Your task to perform on an android device: change notification settings in the gmail app Image 0: 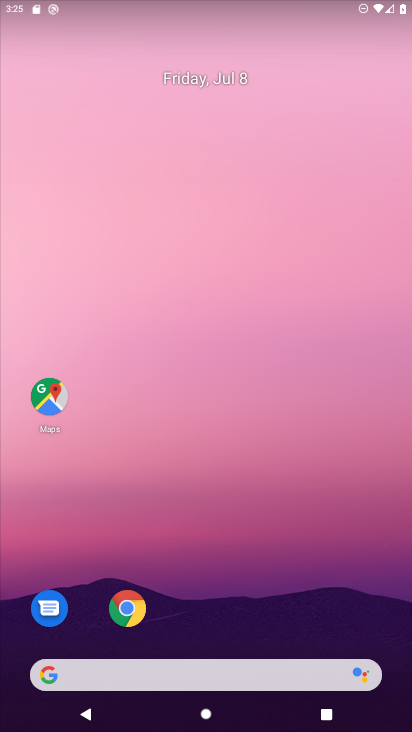
Step 0: drag from (222, 587) to (281, 324)
Your task to perform on an android device: change notification settings in the gmail app Image 1: 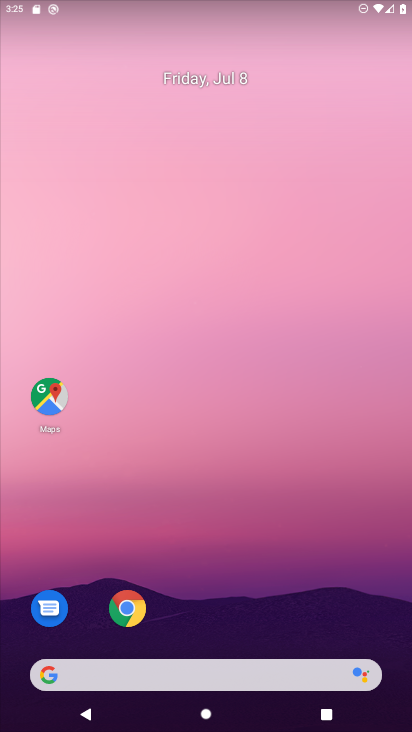
Step 1: drag from (321, 617) to (391, 61)
Your task to perform on an android device: change notification settings in the gmail app Image 2: 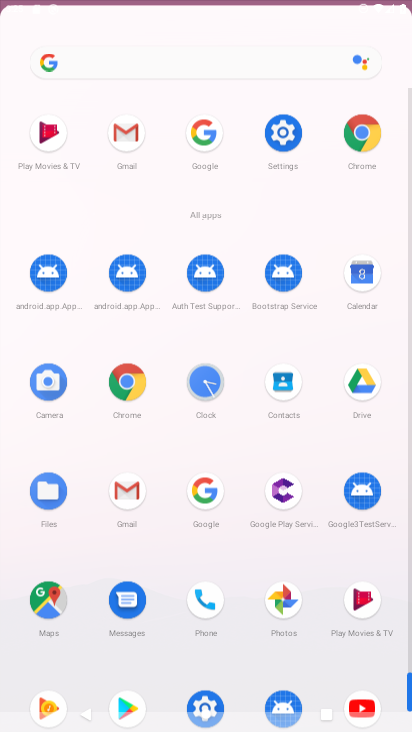
Step 2: drag from (254, 605) to (338, 152)
Your task to perform on an android device: change notification settings in the gmail app Image 3: 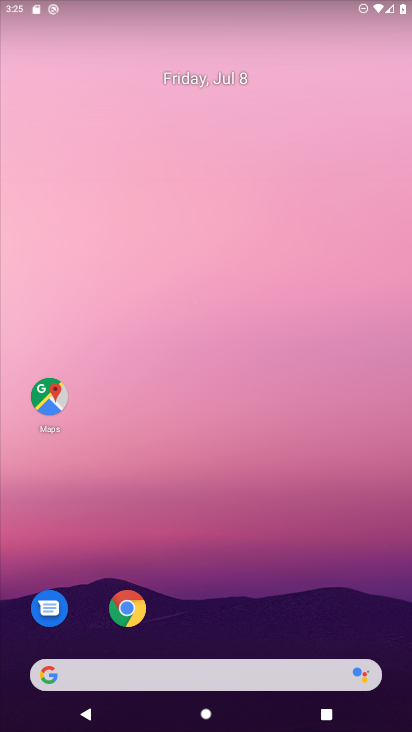
Step 3: drag from (263, 615) to (315, 28)
Your task to perform on an android device: change notification settings in the gmail app Image 4: 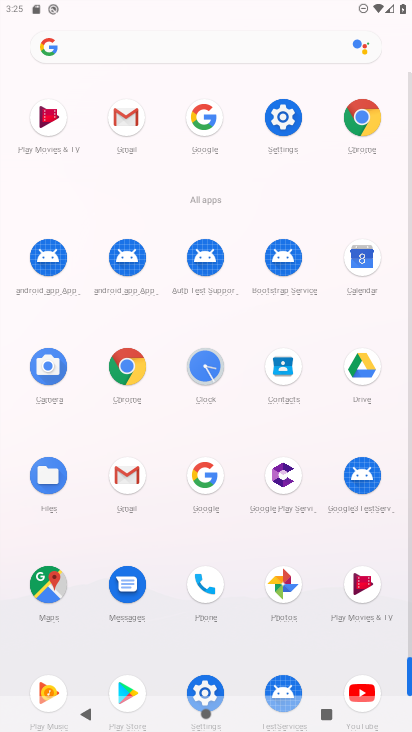
Step 4: click (127, 479)
Your task to perform on an android device: change notification settings in the gmail app Image 5: 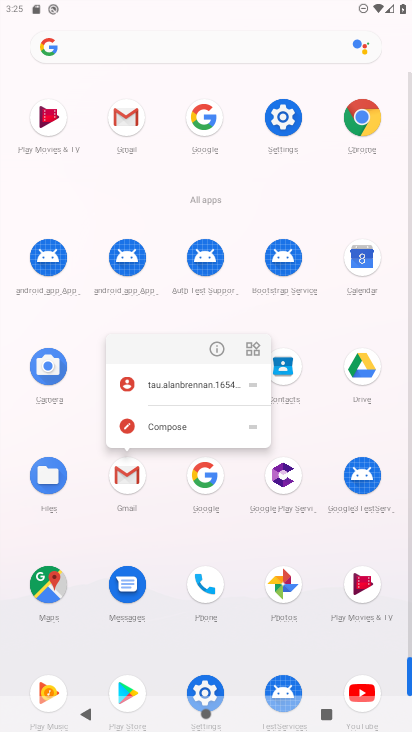
Step 5: click (220, 344)
Your task to perform on an android device: change notification settings in the gmail app Image 6: 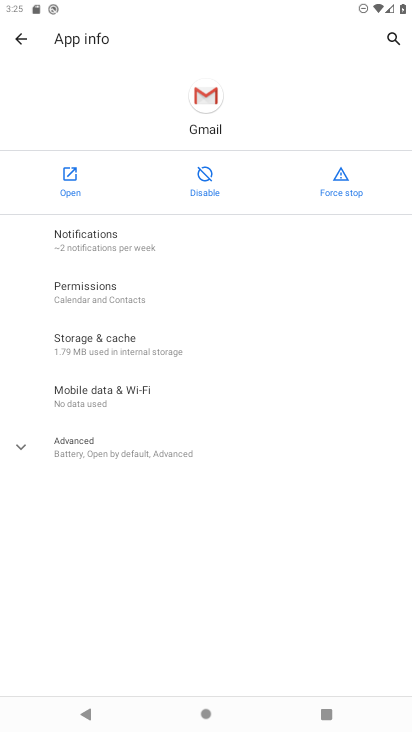
Step 6: click (100, 237)
Your task to perform on an android device: change notification settings in the gmail app Image 7: 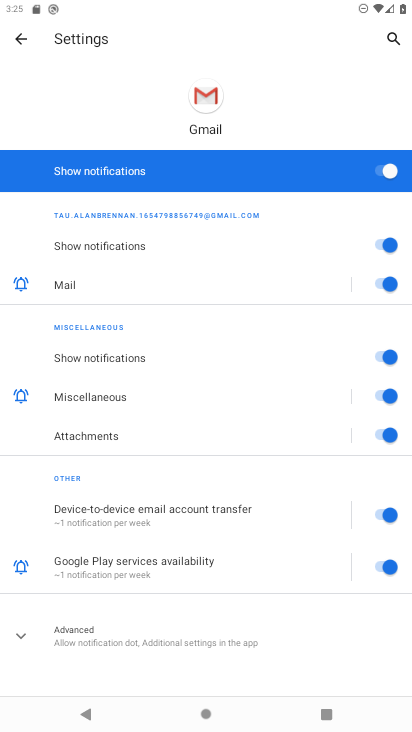
Step 7: click (385, 170)
Your task to perform on an android device: change notification settings in the gmail app Image 8: 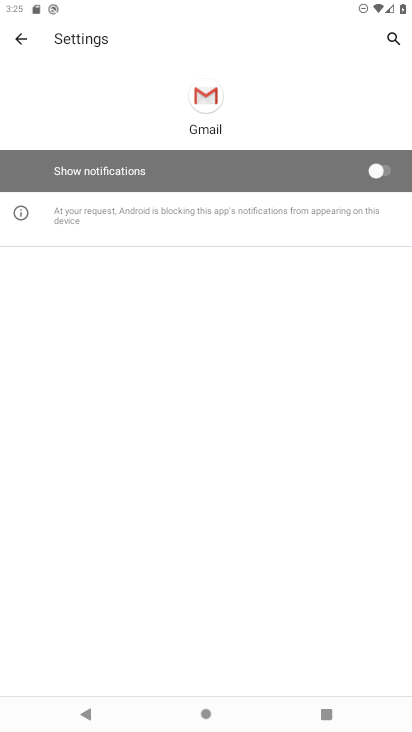
Step 8: task complete